Your task to perform on an android device: Open Maps and search for coffee Image 0: 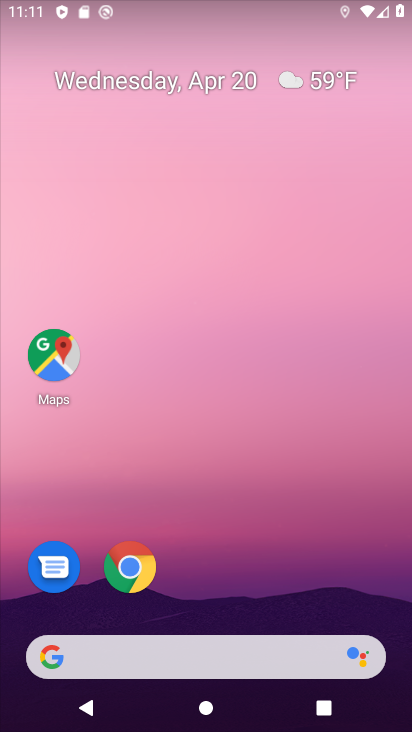
Step 0: drag from (290, 605) to (305, 66)
Your task to perform on an android device: Open Maps and search for coffee Image 1: 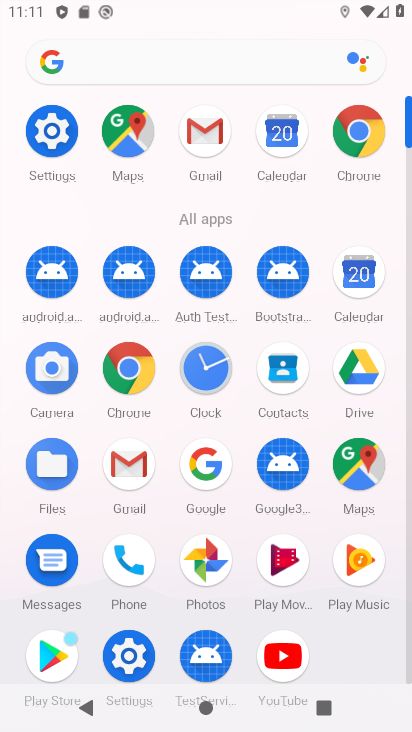
Step 1: click (119, 139)
Your task to perform on an android device: Open Maps and search for coffee Image 2: 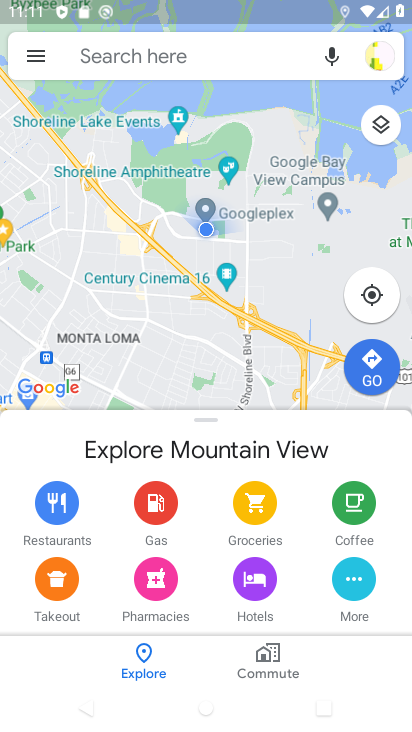
Step 2: click (185, 59)
Your task to perform on an android device: Open Maps and search for coffee Image 3: 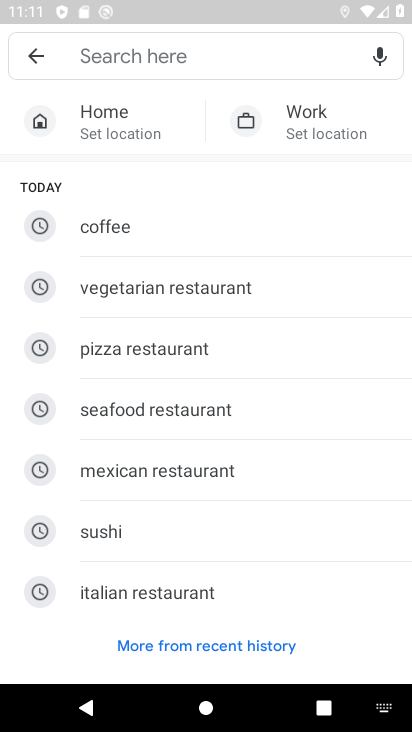
Step 3: type "coffee"
Your task to perform on an android device: Open Maps and search for coffee Image 4: 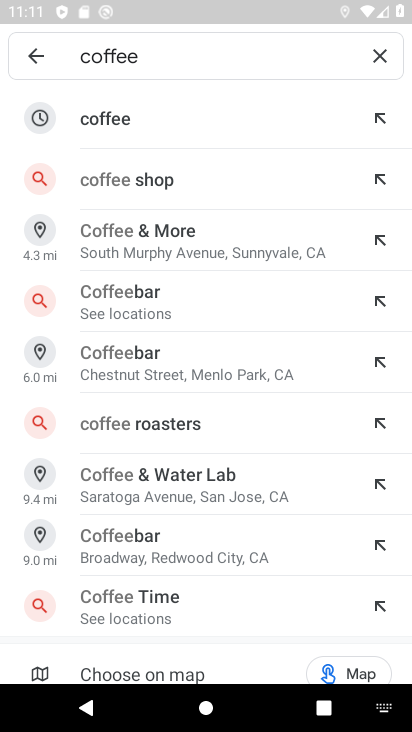
Step 4: click (85, 106)
Your task to perform on an android device: Open Maps and search for coffee Image 5: 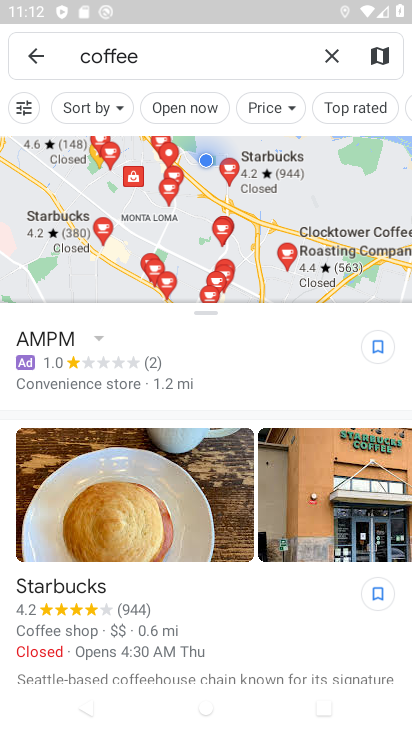
Step 5: task complete